Your task to perform on an android device: toggle notifications settings in the gmail app Image 0: 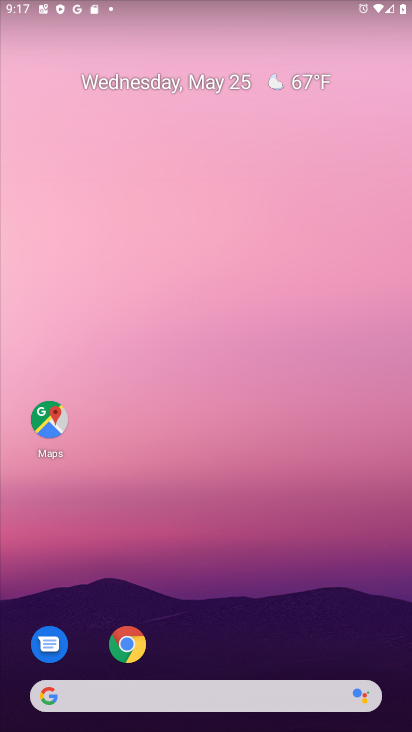
Step 0: press home button
Your task to perform on an android device: toggle notifications settings in the gmail app Image 1: 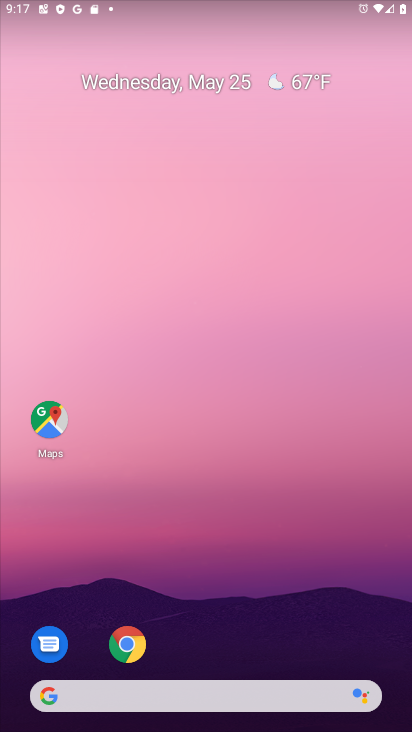
Step 1: drag from (204, 663) to (198, 88)
Your task to perform on an android device: toggle notifications settings in the gmail app Image 2: 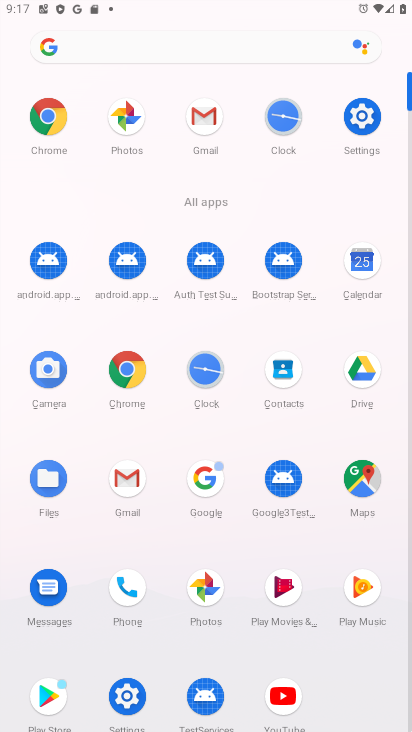
Step 2: click (202, 110)
Your task to perform on an android device: toggle notifications settings in the gmail app Image 3: 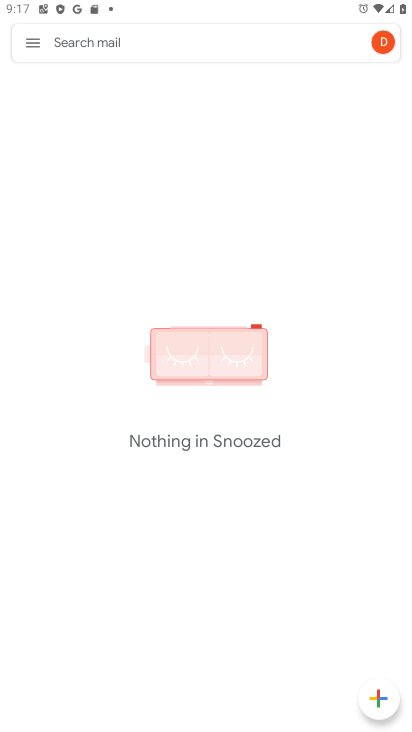
Step 3: click (31, 35)
Your task to perform on an android device: toggle notifications settings in the gmail app Image 4: 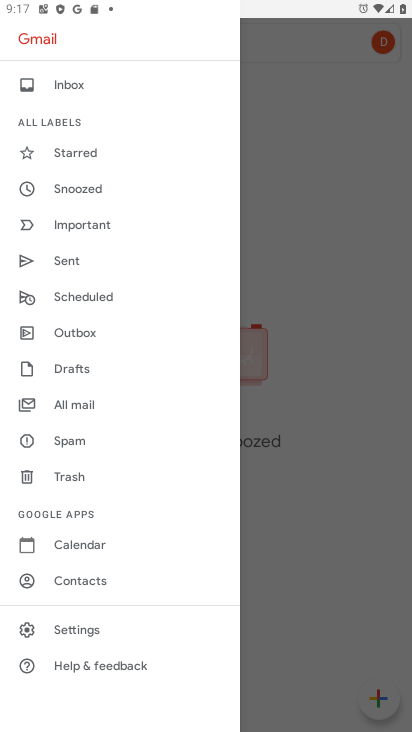
Step 4: click (40, 624)
Your task to perform on an android device: toggle notifications settings in the gmail app Image 5: 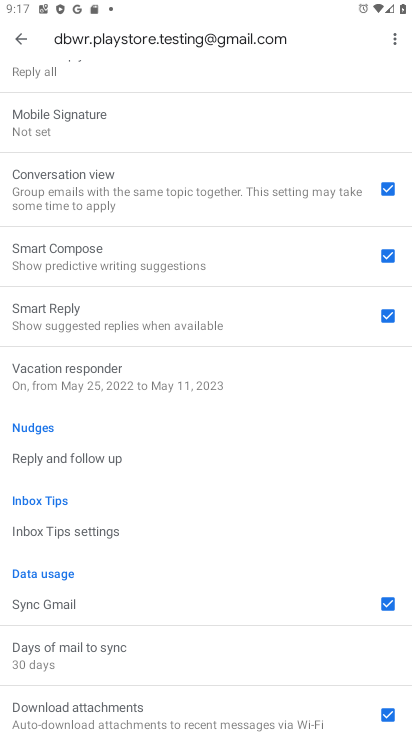
Step 5: drag from (65, 112) to (63, 528)
Your task to perform on an android device: toggle notifications settings in the gmail app Image 6: 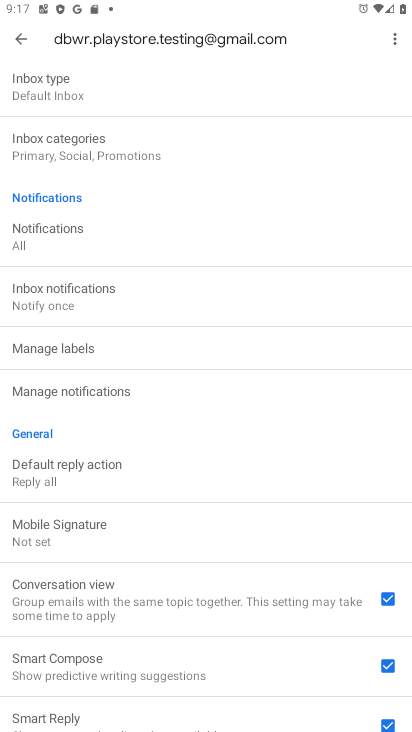
Step 6: click (18, 38)
Your task to perform on an android device: toggle notifications settings in the gmail app Image 7: 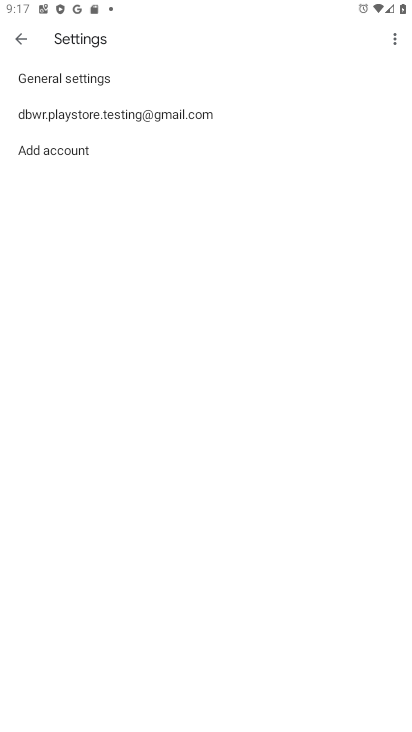
Step 7: click (119, 76)
Your task to perform on an android device: toggle notifications settings in the gmail app Image 8: 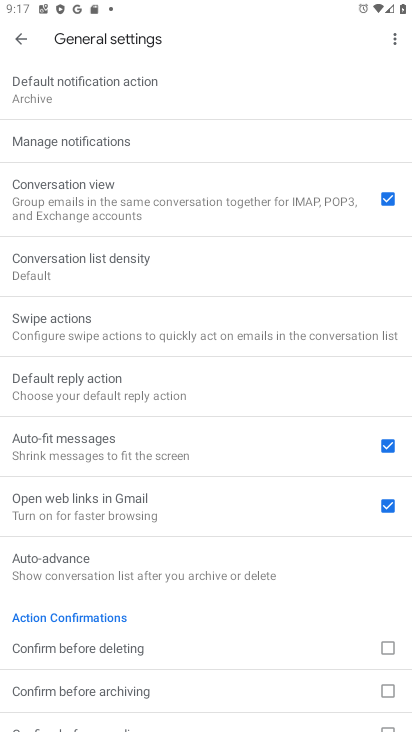
Step 8: click (147, 134)
Your task to perform on an android device: toggle notifications settings in the gmail app Image 9: 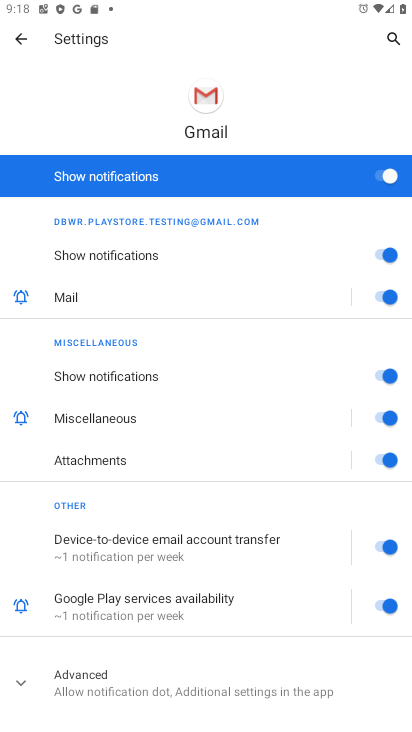
Step 9: click (383, 173)
Your task to perform on an android device: toggle notifications settings in the gmail app Image 10: 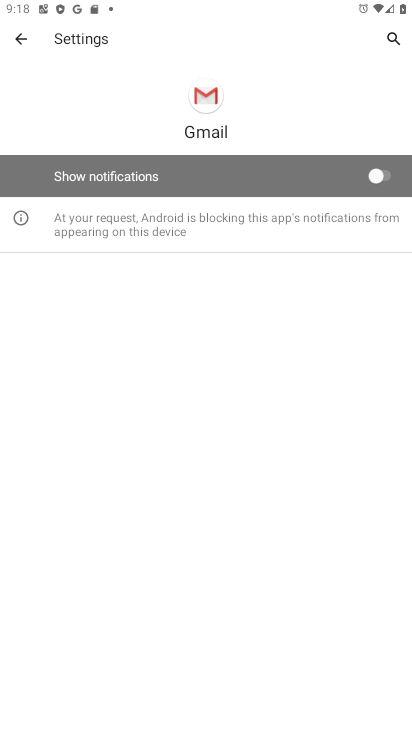
Step 10: task complete